Your task to perform on an android device: Go to wifi settings Image 0: 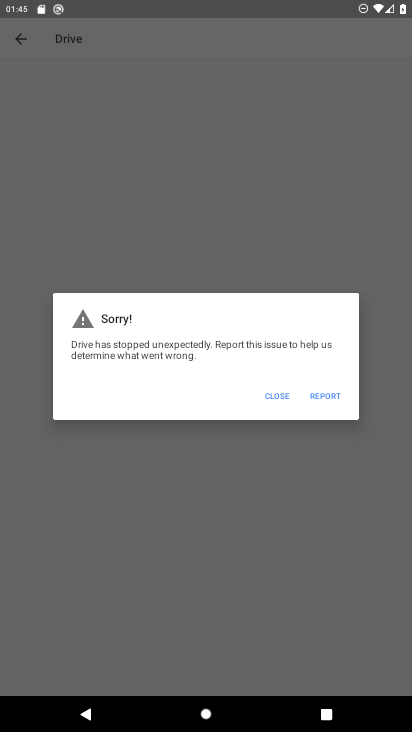
Step 0: press home button
Your task to perform on an android device: Go to wifi settings Image 1: 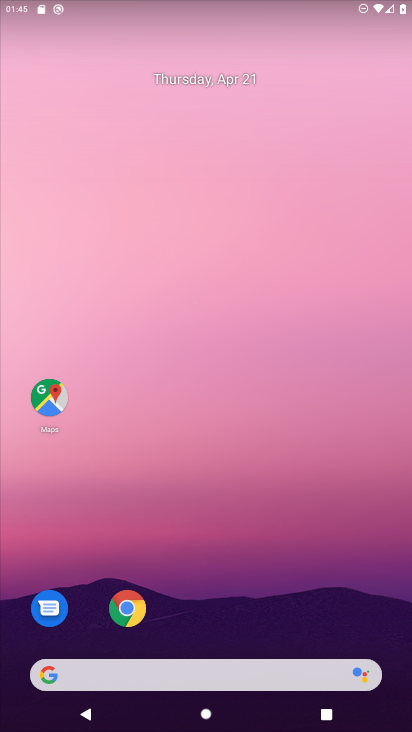
Step 1: drag from (235, 551) to (242, 148)
Your task to perform on an android device: Go to wifi settings Image 2: 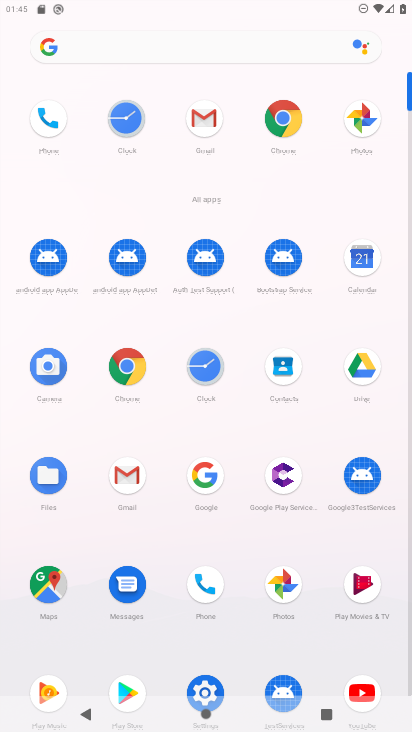
Step 2: click (197, 681)
Your task to perform on an android device: Go to wifi settings Image 3: 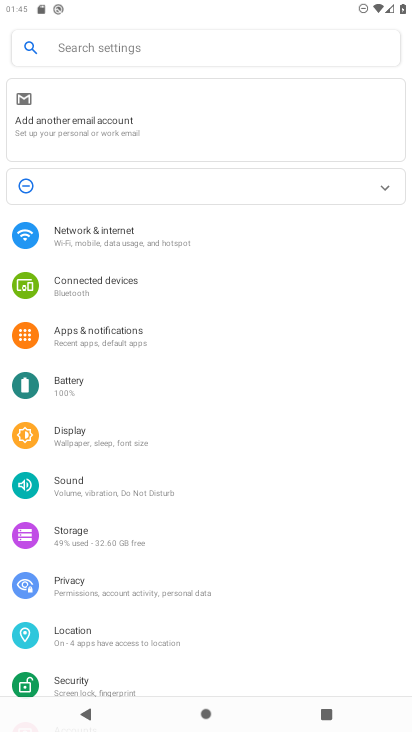
Step 3: click (127, 242)
Your task to perform on an android device: Go to wifi settings Image 4: 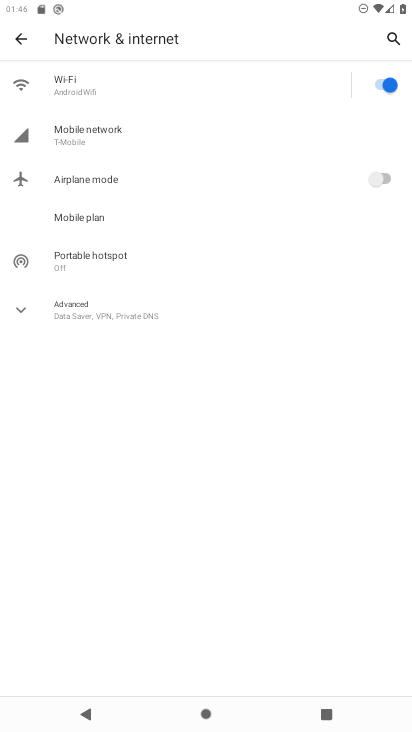
Step 4: click (104, 85)
Your task to perform on an android device: Go to wifi settings Image 5: 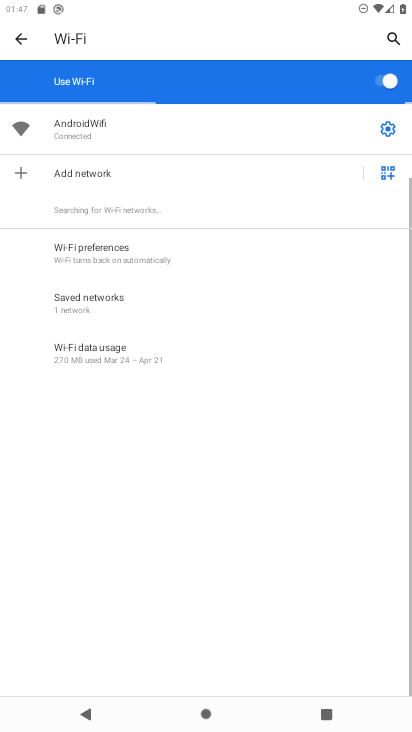
Step 5: task complete